Your task to perform on an android device: Open Reddit.com Image 0: 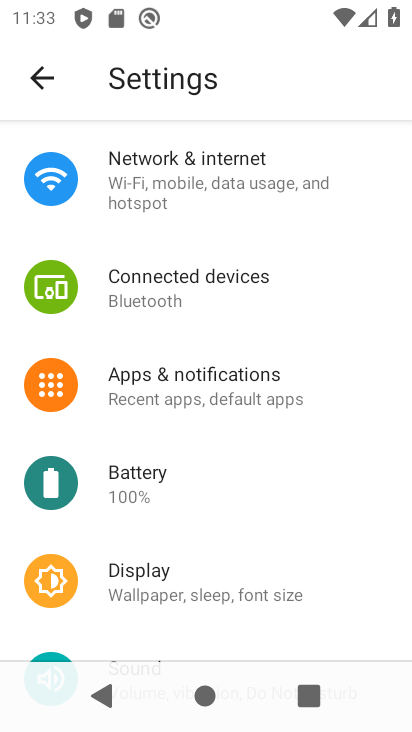
Step 0: press home button
Your task to perform on an android device: Open Reddit.com Image 1: 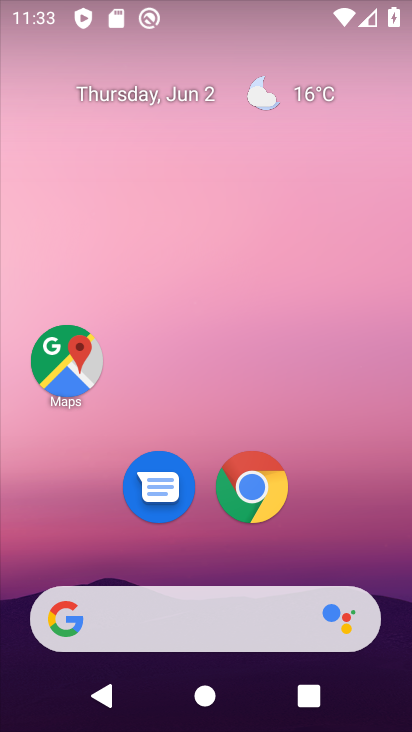
Step 1: click (77, 639)
Your task to perform on an android device: Open Reddit.com Image 2: 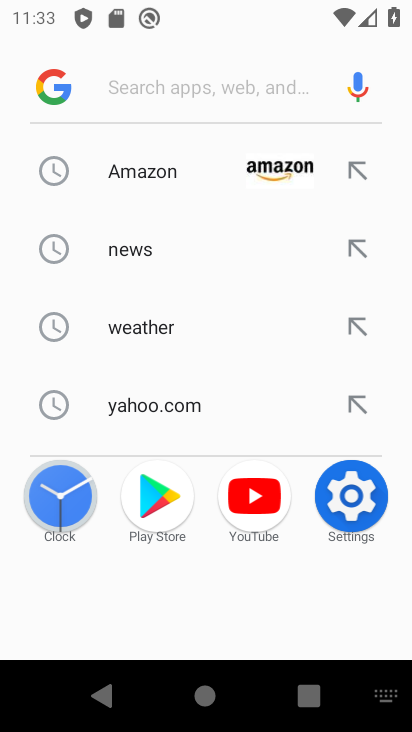
Step 2: type "Reddit.com"
Your task to perform on an android device: Open Reddit.com Image 3: 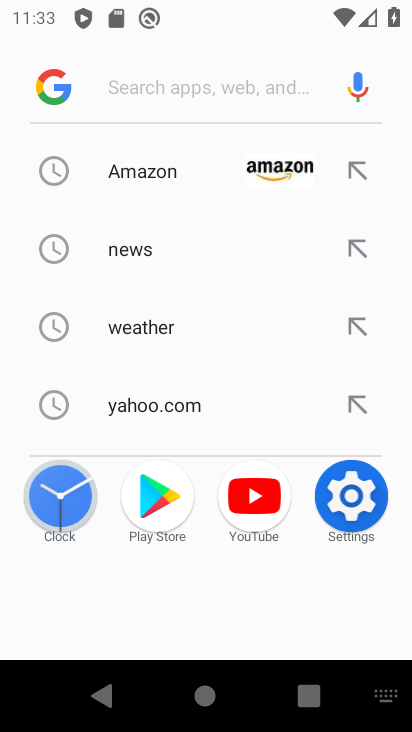
Step 3: click (148, 82)
Your task to perform on an android device: Open Reddit.com Image 4: 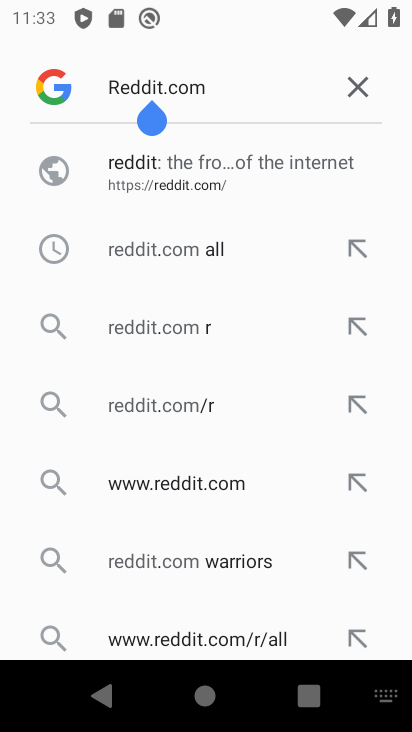
Step 4: click (161, 171)
Your task to perform on an android device: Open Reddit.com Image 5: 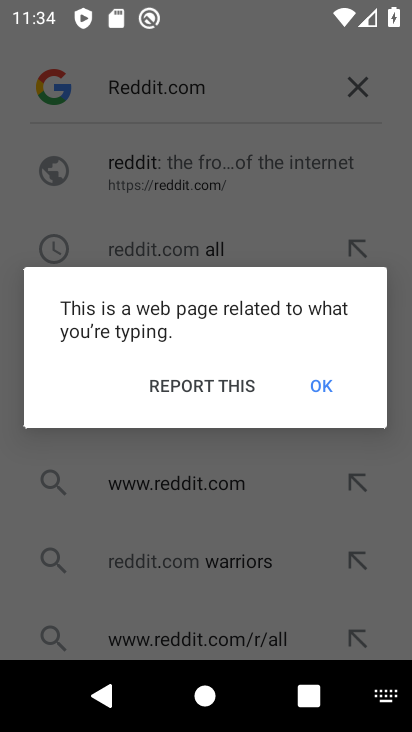
Step 5: click (330, 391)
Your task to perform on an android device: Open Reddit.com Image 6: 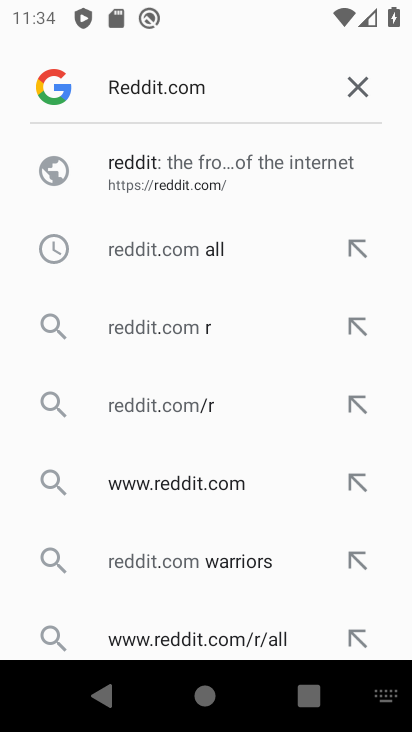
Step 6: click (160, 169)
Your task to perform on an android device: Open Reddit.com Image 7: 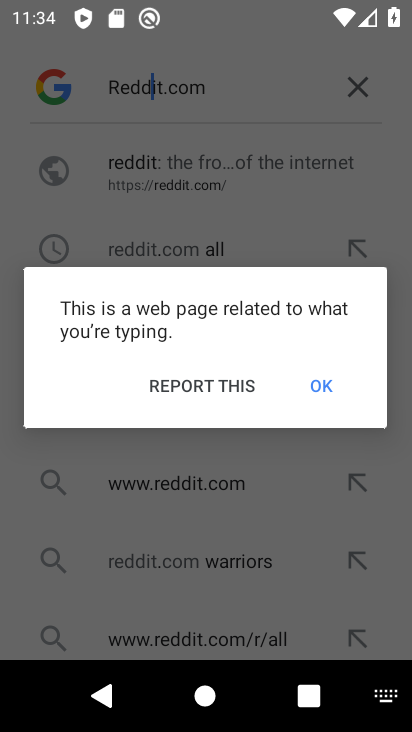
Step 7: click (325, 386)
Your task to perform on an android device: Open Reddit.com Image 8: 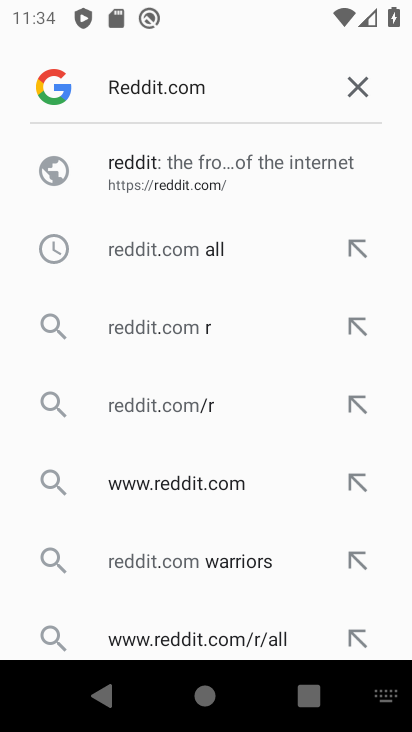
Step 8: click (144, 169)
Your task to perform on an android device: Open Reddit.com Image 9: 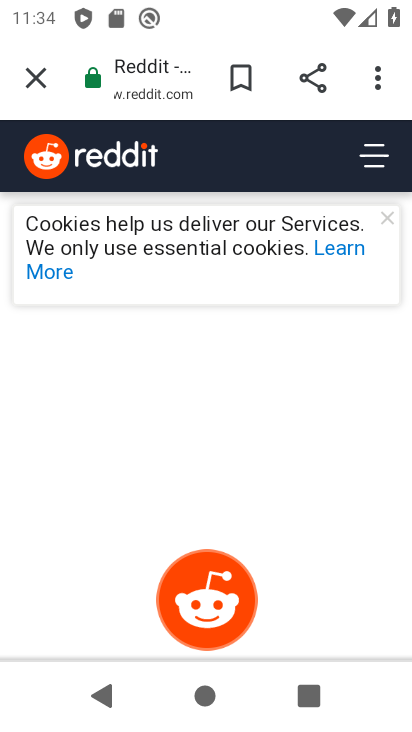
Step 9: task complete